Your task to perform on an android device: Open wifi settings Image 0: 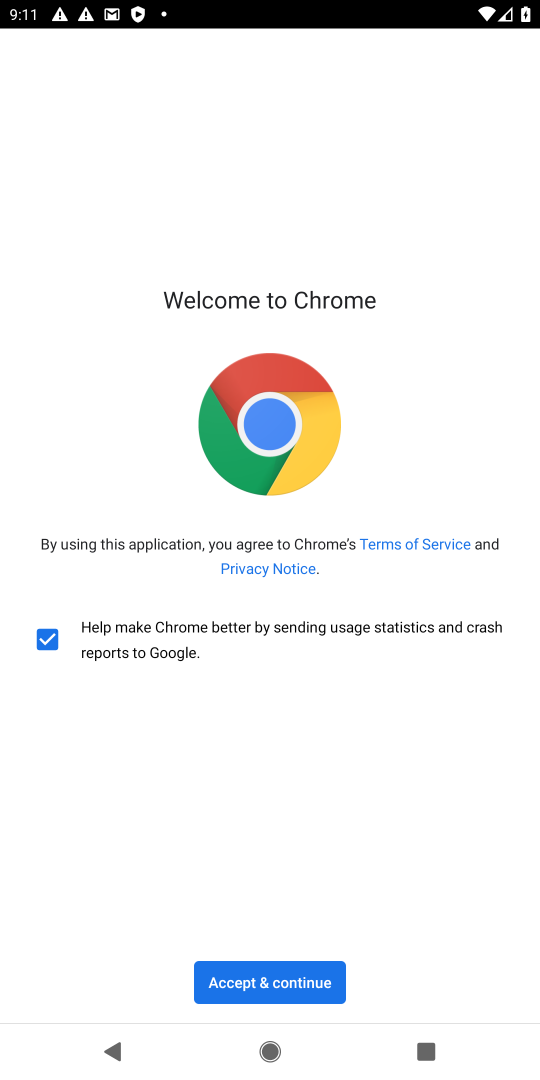
Step 0: press home button
Your task to perform on an android device: Open wifi settings Image 1: 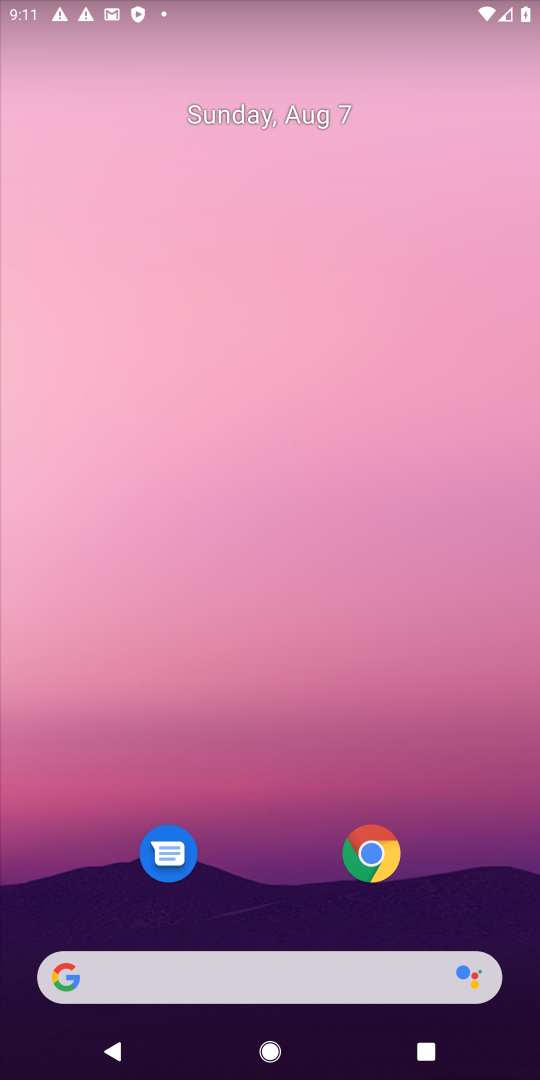
Step 1: drag from (474, 856) to (470, 305)
Your task to perform on an android device: Open wifi settings Image 2: 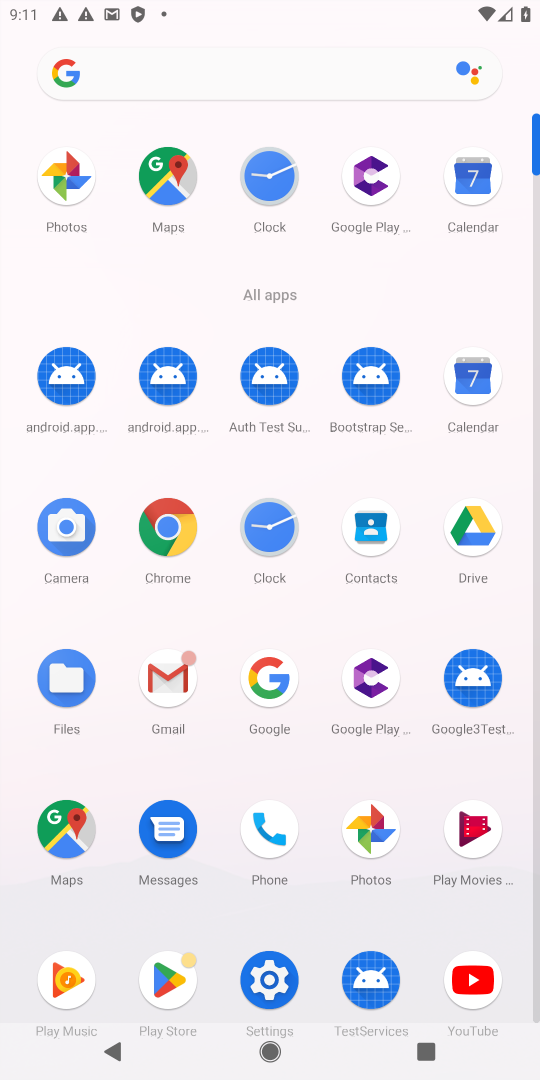
Step 2: click (262, 983)
Your task to perform on an android device: Open wifi settings Image 3: 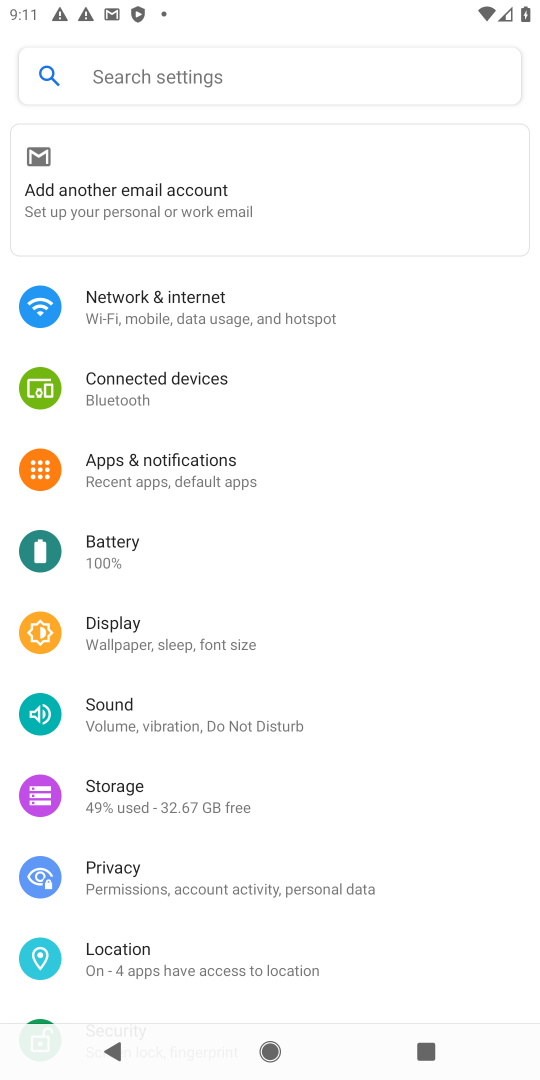
Step 3: drag from (471, 774) to (472, 584)
Your task to perform on an android device: Open wifi settings Image 4: 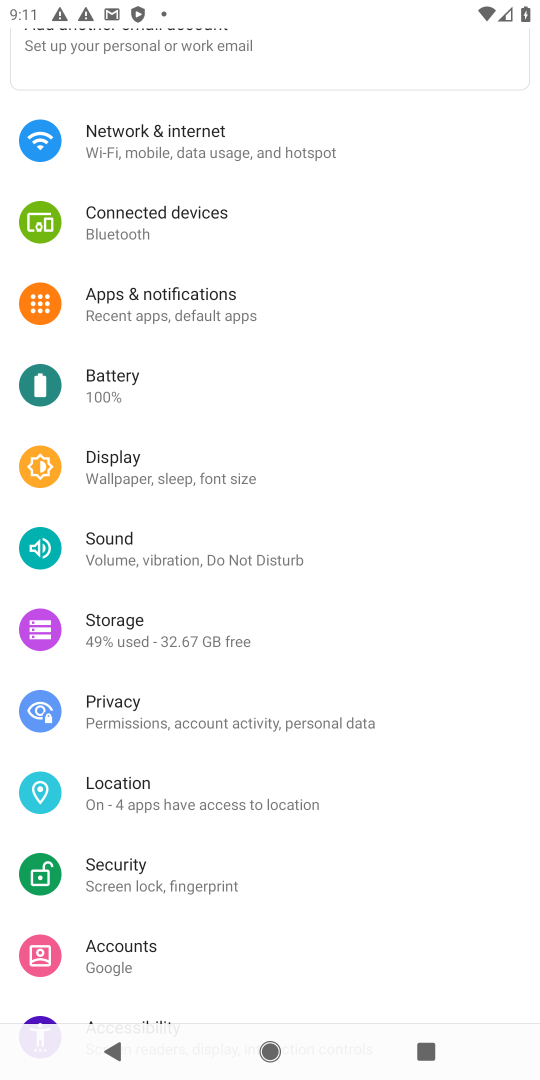
Step 4: drag from (452, 890) to (461, 728)
Your task to perform on an android device: Open wifi settings Image 5: 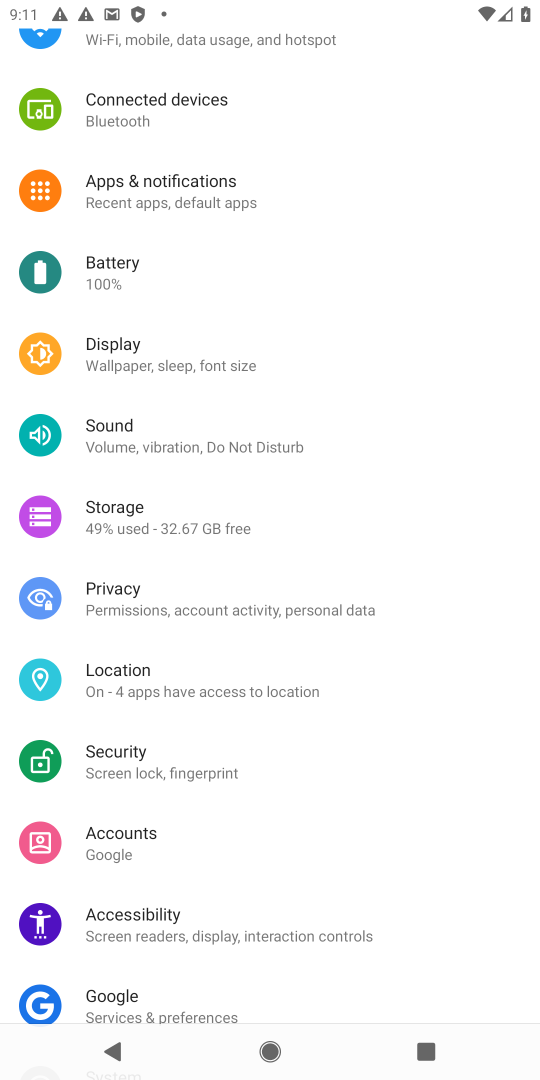
Step 5: drag from (477, 893) to (483, 688)
Your task to perform on an android device: Open wifi settings Image 6: 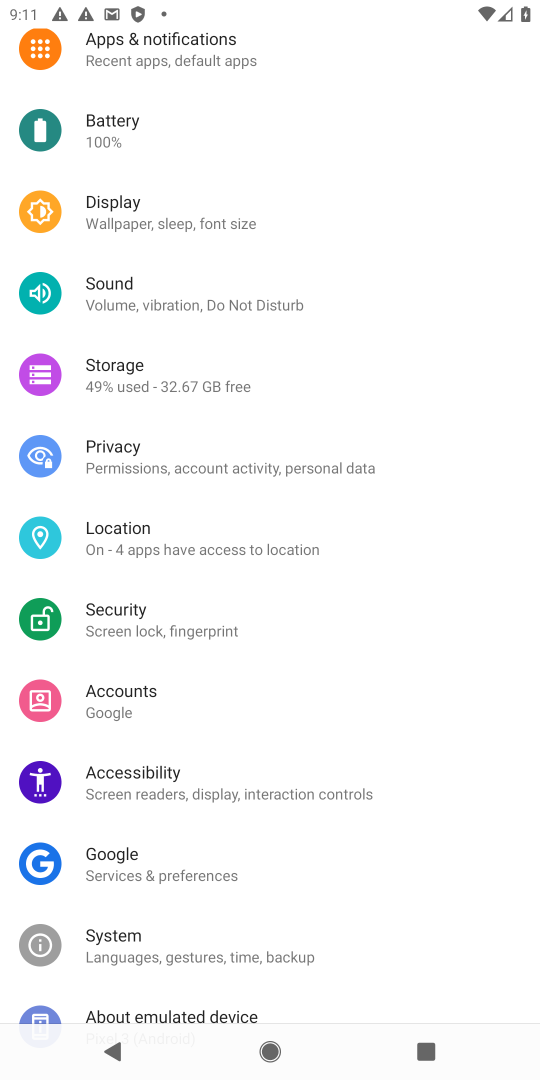
Step 6: drag from (480, 930) to (493, 710)
Your task to perform on an android device: Open wifi settings Image 7: 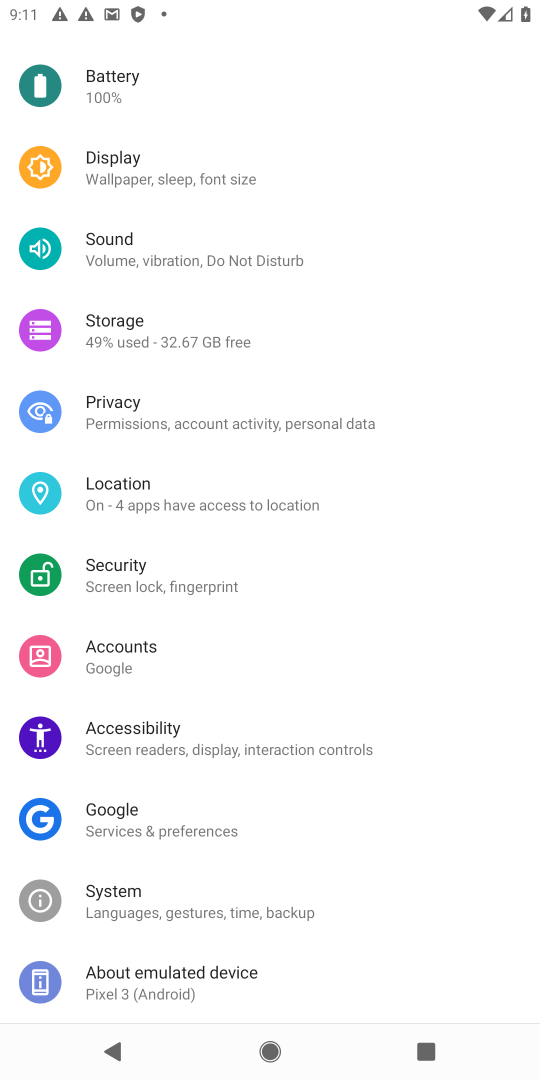
Step 7: drag from (482, 890) to (485, 633)
Your task to perform on an android device: Open wifi settings Image 8: 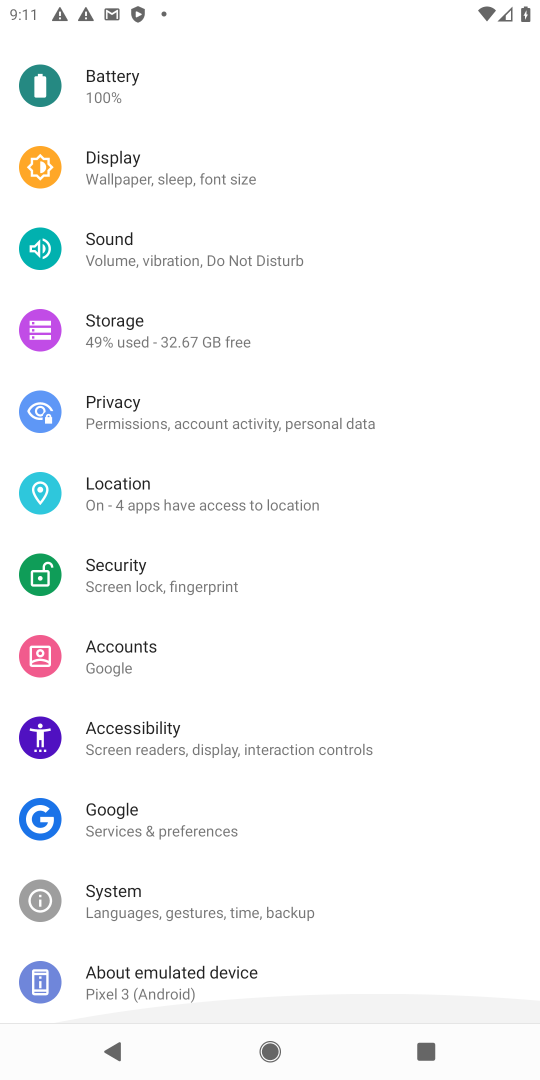
Step 8: drag from (492, 512) to (481, 663)
Your task to perform on an android device: Open wifi settings Image 9: 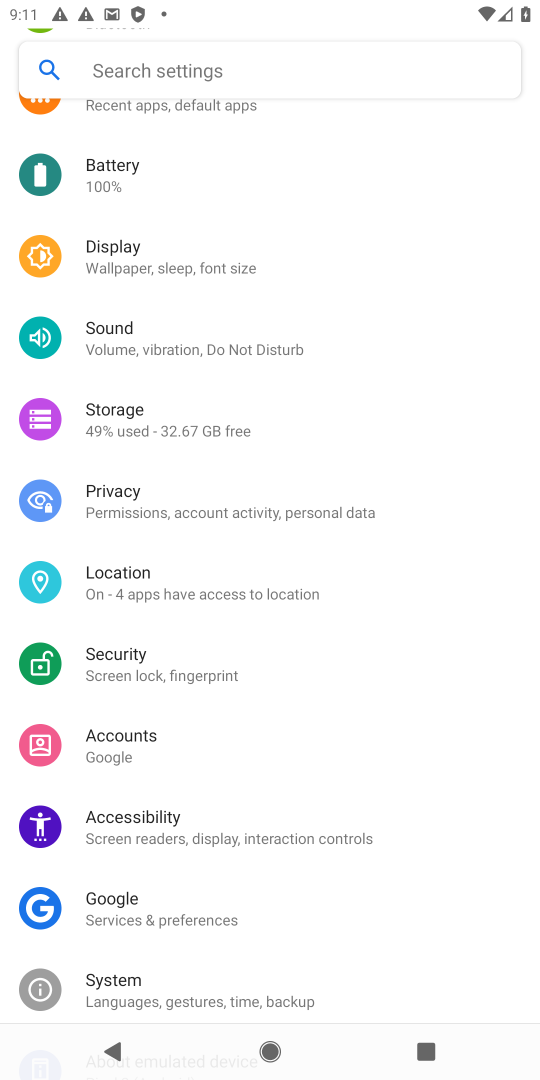
Step 9: drag from (468, 509) to (475, 684)
Your task to perform on an android device: Open wifi settings Image 10: 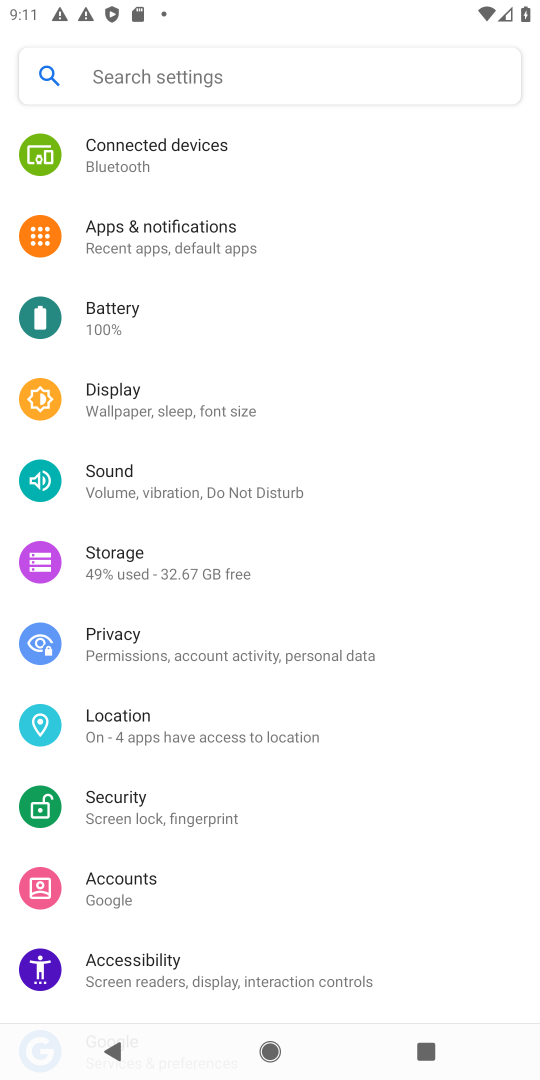
Step 10: drag from (466, 503) to (473, 659)
Your task to perform on an android device: Open wifi settings Image 11: 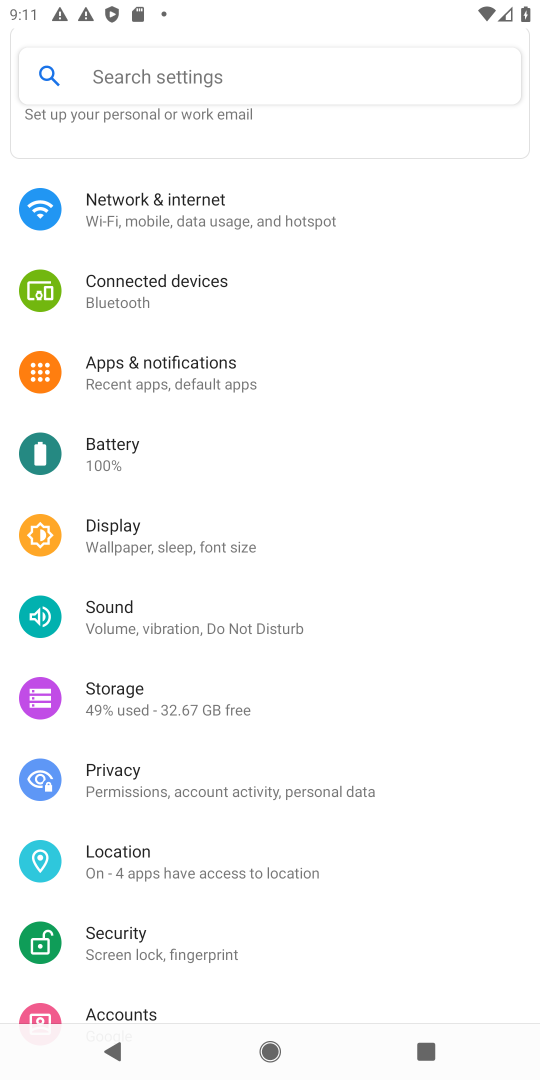
Step 11: drag from (468, 520) to (472, 659)
Your task to perform on an android device: Open wifi settings Image 12: 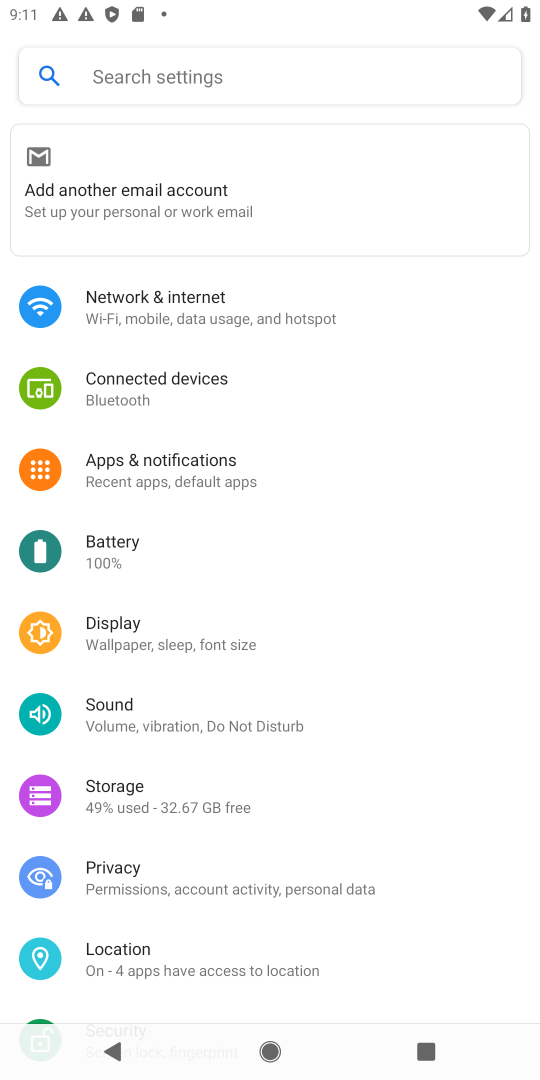
Step 12: drag from (476, 480) to (480, 623)
Your task to perform on an android device: Open wifi settings Image 13: 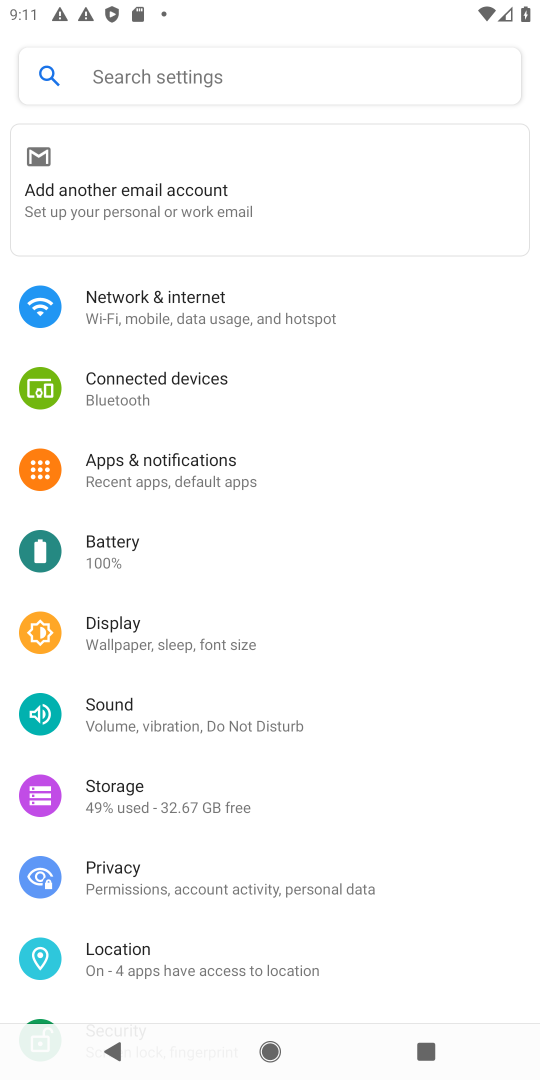
Step 13: click (357, 314)
Your task to perform on an android device: Open wifi settings Image 14: 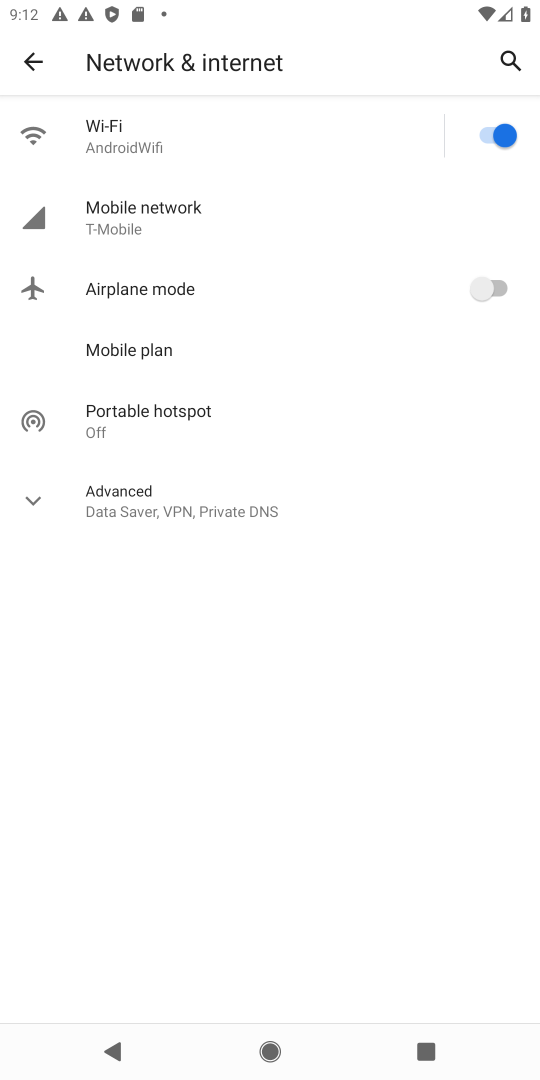
Step 14: click (203, 147)
Your task to perform on an android device: Open wifi settings Image 15: 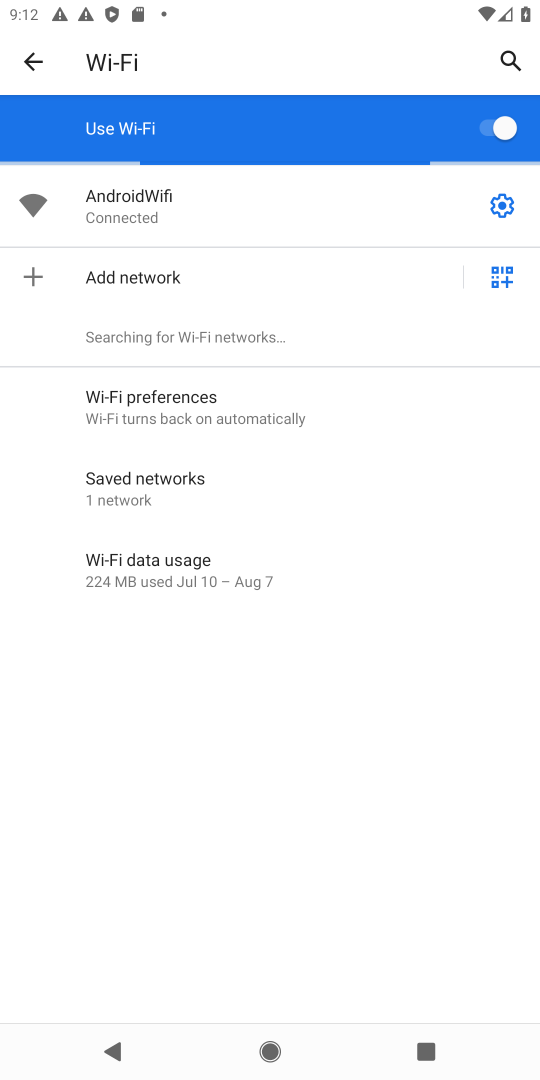
Step 15: task complete